Your task to perform on an android device: turn on the 12-hour format for clock Image 0: 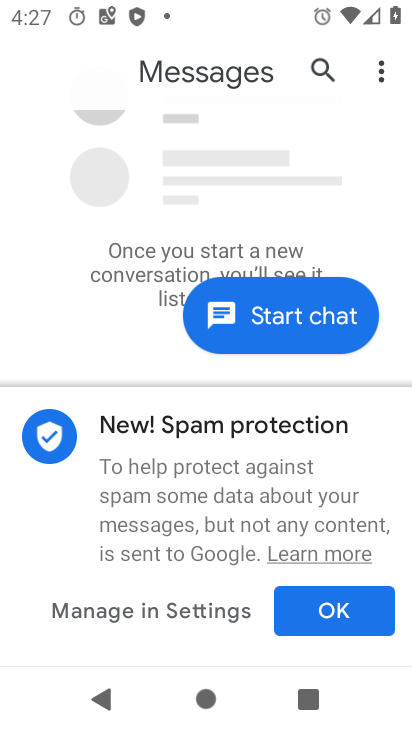
Step 0: press back button
Your task to perform on an android device: turn on the 12-hour format for clock Image 1: 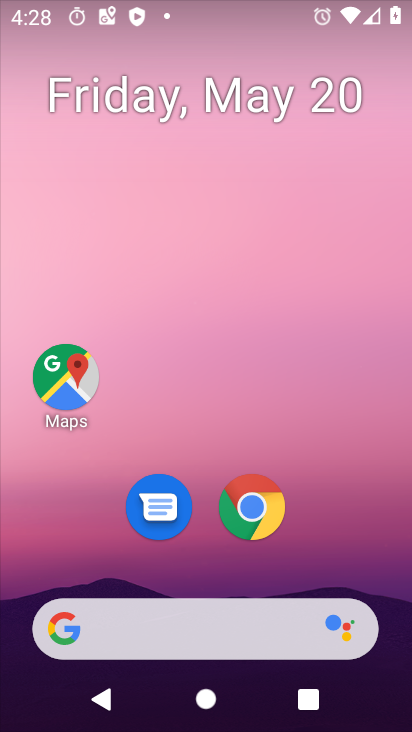
Step 1: drag from (330, 552) to (301, 153)
Your task to perform on an android device: turn on the 12-hour format for clock Image 2: 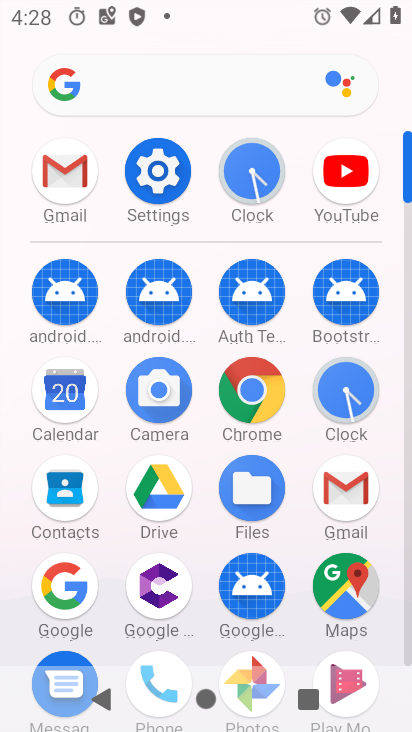
Step 2: click (252, 171)
Your task to perform on an android device: turn on the 12-hour format for clock Image 3: 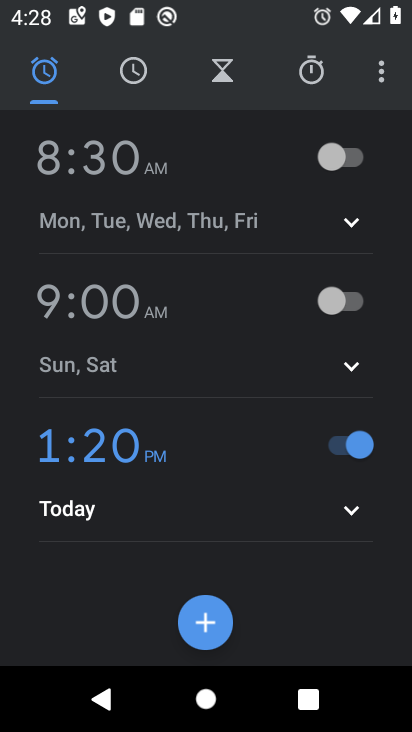
Step 3: click (383, 67)
Your task to perform on an android device: turn on the 12-hour format for clock Image 4: 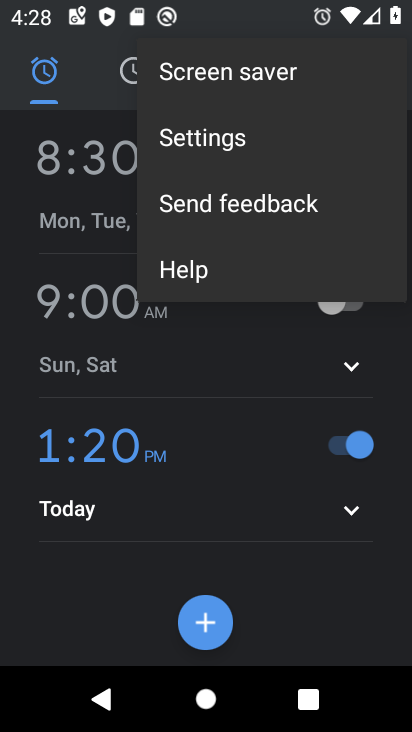
Step 4: click (214, 149)
Your task to perform on an android device: turn on the 12-hour format for clock Image 5: 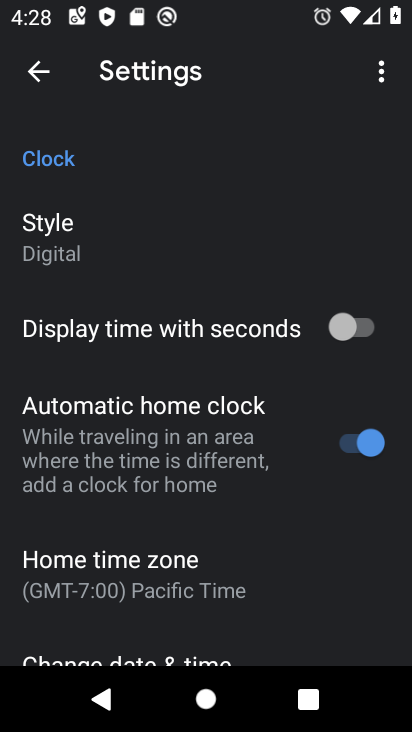
Step 5: drag from (158, 510) to (247, 367)
Your task to perform on an android device: turn on the 12-hour format for clock Image 6: 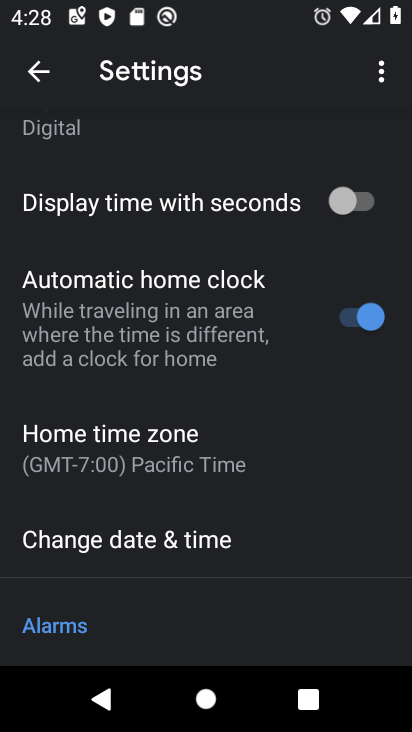
Step 6: click (137, 548)
Your task to perform on an android device: turn on the 12-hour format for clock Image 7: 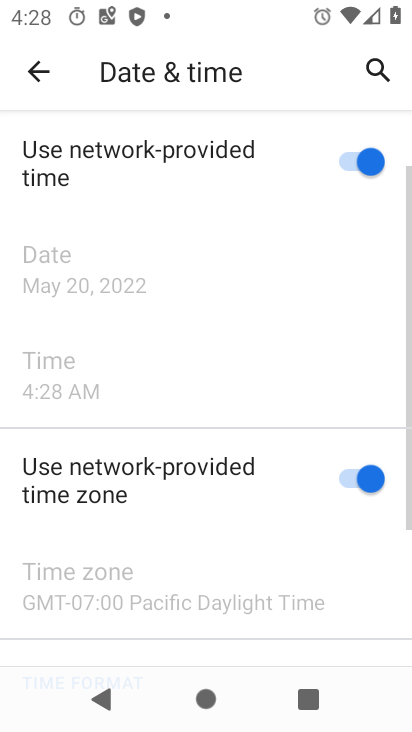
Step 7: task complete